Your task to perform on an android device: Go to notification settings Image 0: 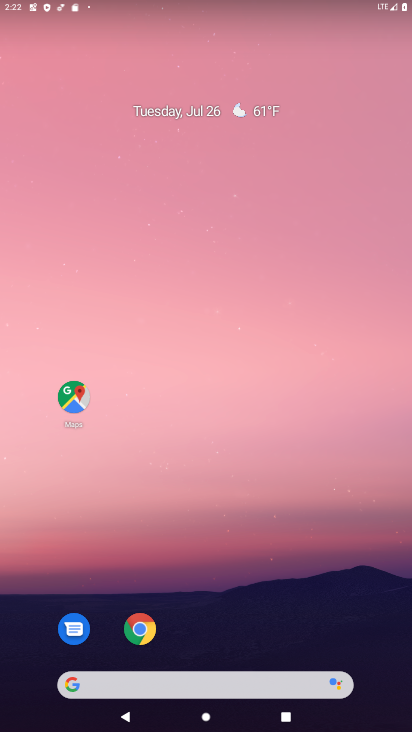
Step 0: drag from (234, 583) to (182, 12)
Your task to perform on an android device: Go to notification settings Image 1: 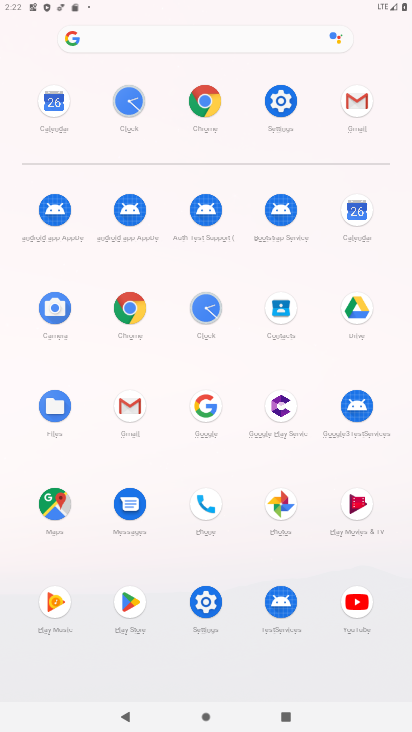
Step 1: click (278, 98)
Your task to perform on an android device: Go to notification settings Image 2: 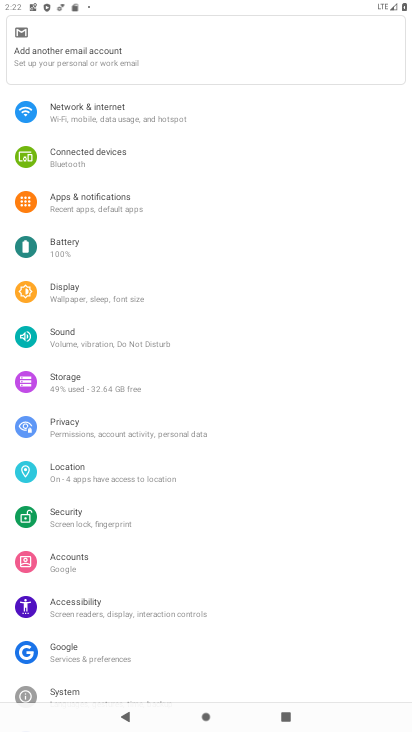
Step 2: click (98, 199)
Your task to perform on an android device: Go to notification settings Image 3: 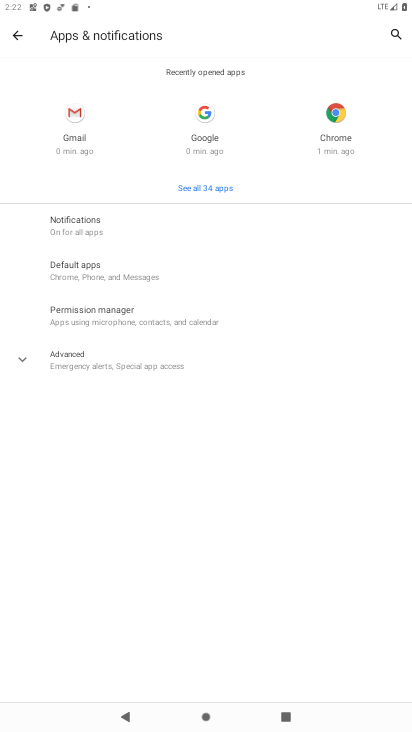
Step 3: task complete